Your task to perform on an android device: open wifi settings Image 0: 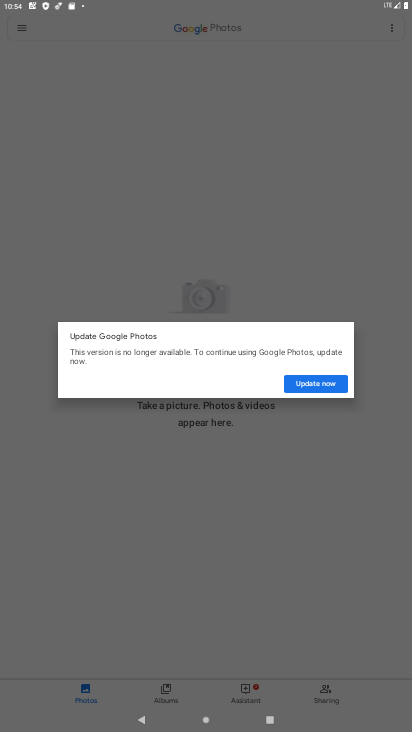
Step 0: press home button
Your task to perform on an android device: open wifi settings Image 1: 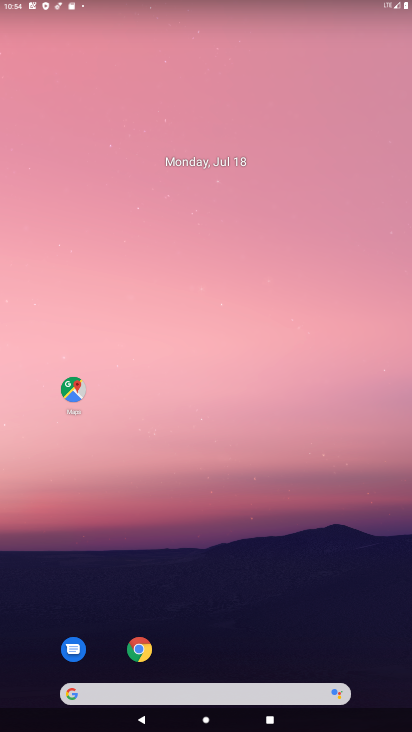
Step 1: drag from (169, 688) to (213, 7)
Your task to perform on an android device: open wifi settings Image 2: 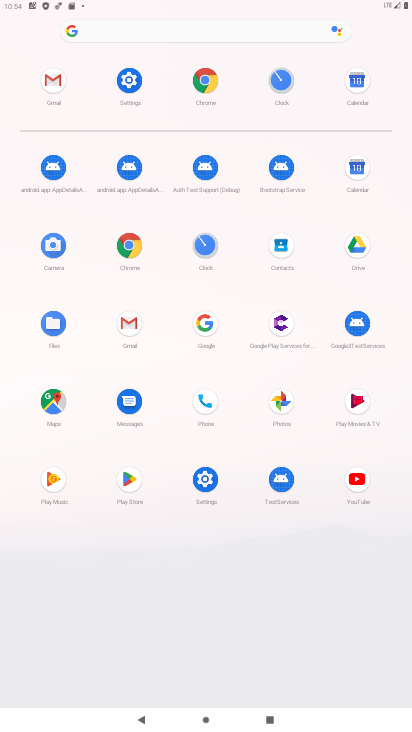
Step 2: click (129, 86)
Your task to perform on an android device: open wifi settings Image 3: 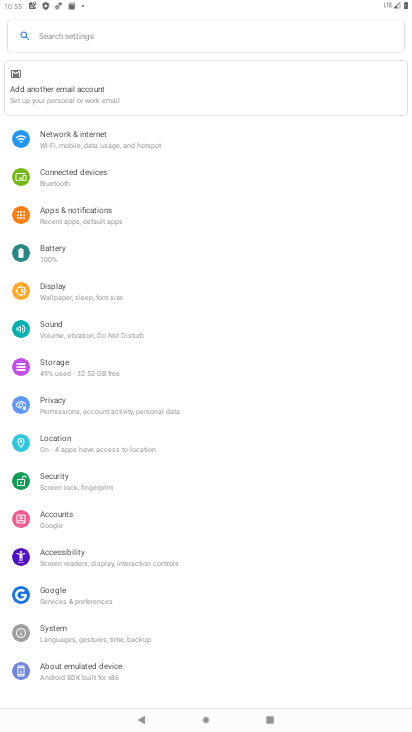
Step 3: click (108, 135)
Your task to perform on an android device: open wifi settings Image 4: 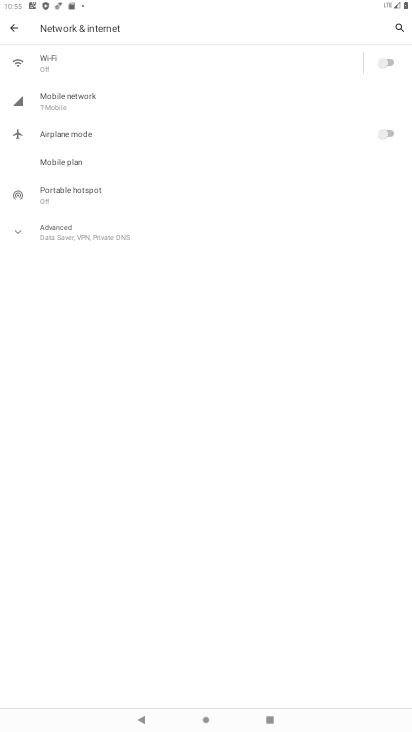
Step 4: click (155, 67)
Your task to perform on an android device: open wifi settings Image 5: 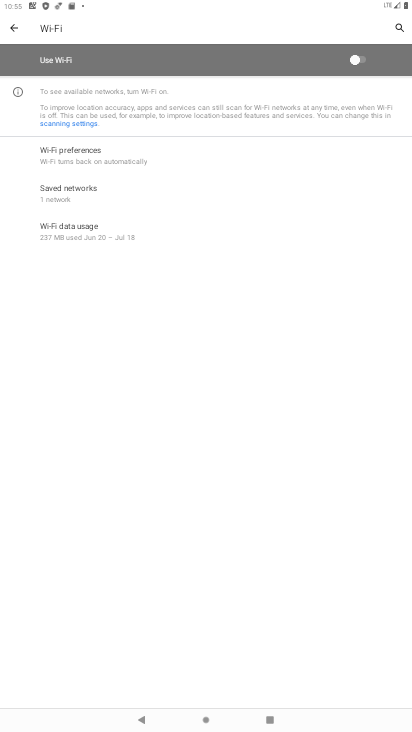
Step 5: task complete